Your task to perform on an android device: open device folders in google photos Image 0: 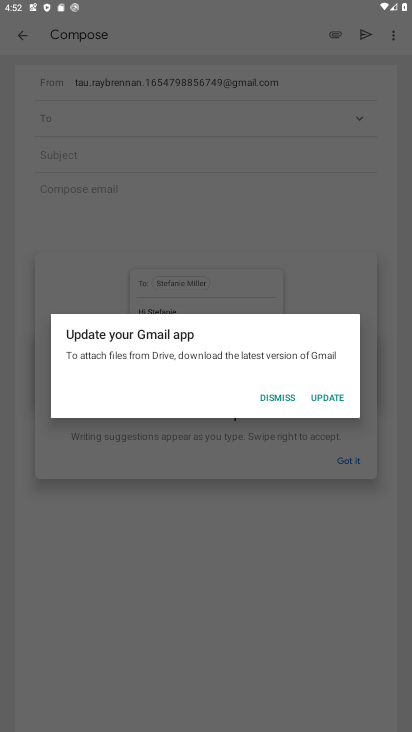
Step 0: press home button
Your task to perform on an android device: open device folders in google photos Image 1: 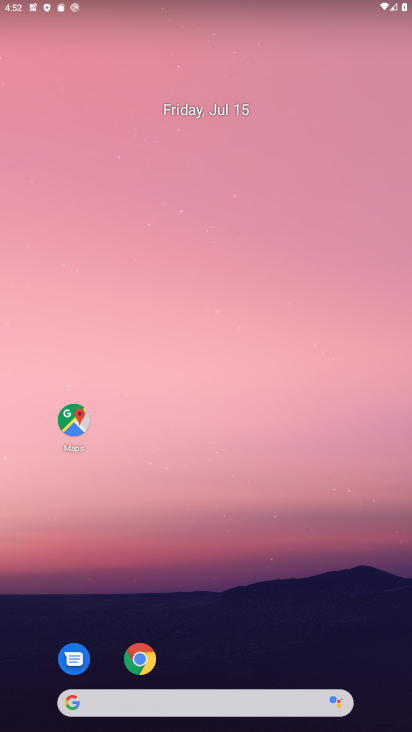
Step 1: drag from (238, 532) to (284, 11)
Your task to perform on an android device: open device folders in google photos Image 2: 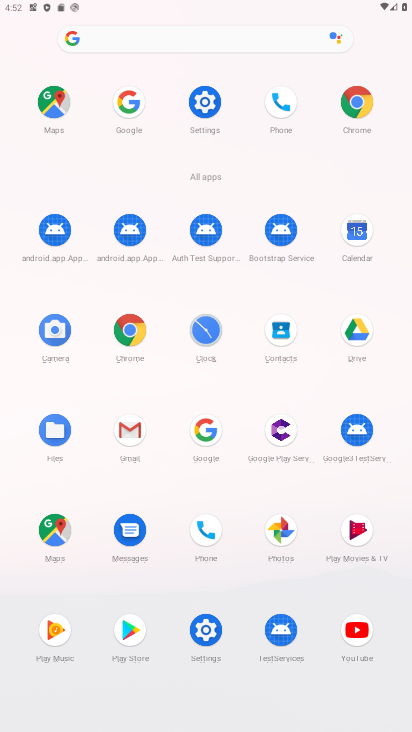
Step 2: click (291, 534)
Your task to perform on an android device: open device folders in google photos Image 3: 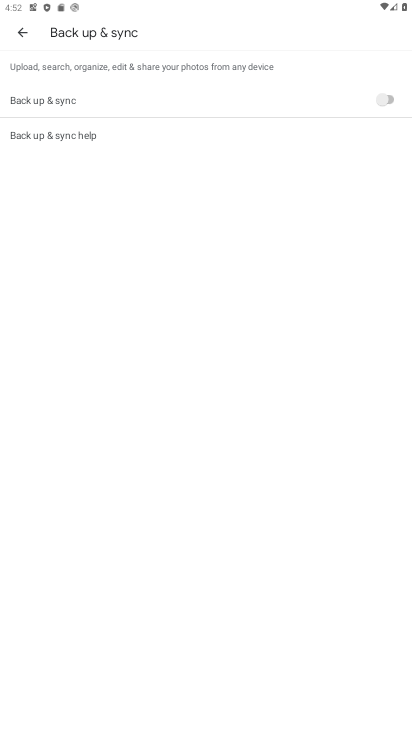
Step 3: click (16, 36)
Your task to perform on an android device: open device folders in google photos Image 4: 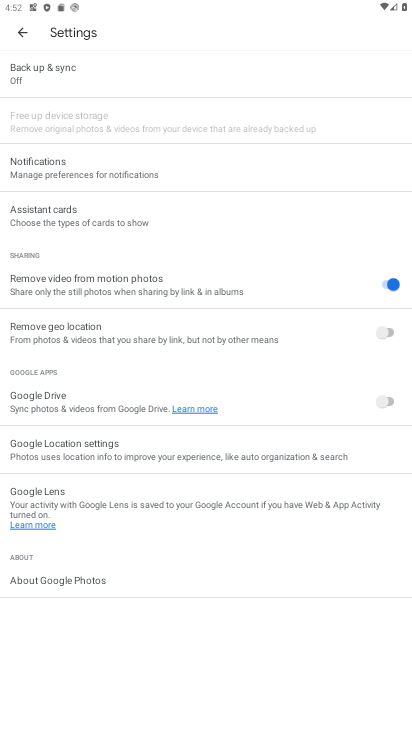
Step 4: click (24, 41)
Your task to perform on an android device: open device folders in google photos Image 5: 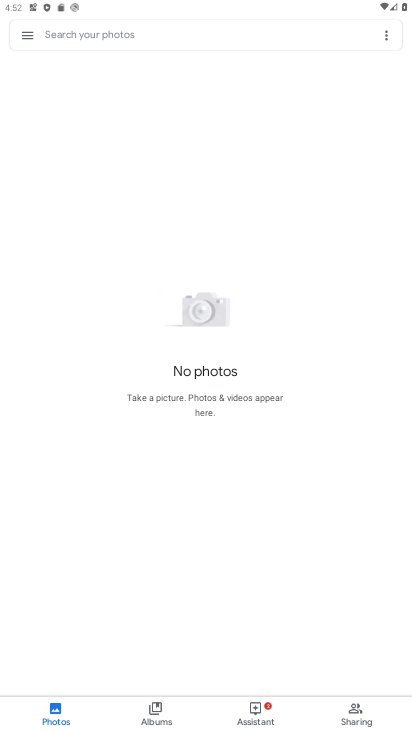
Step 5: click (30, 27)
Your task to perform on an android device: open device folders in google photos Image 6: 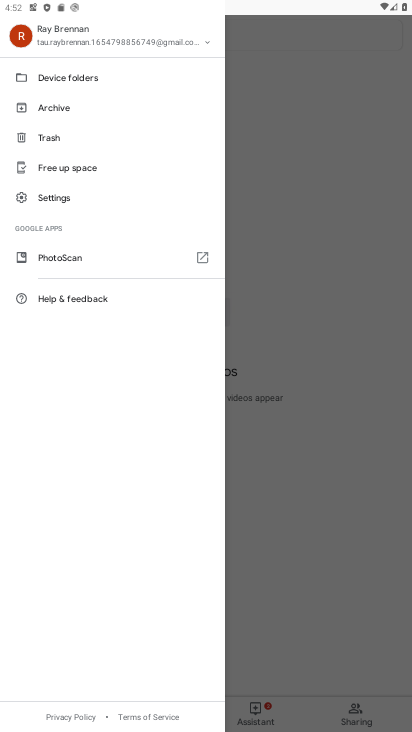
Step 6: click (57, 80)
Your task to perform on an android device: open device folders in google photos Image 7: 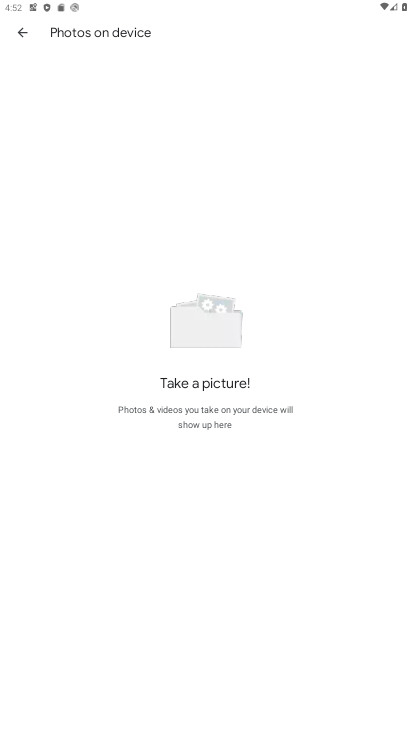
Step 7: task complete